Your task to perform on an android device: open a new tab in the chrome app Image 0: 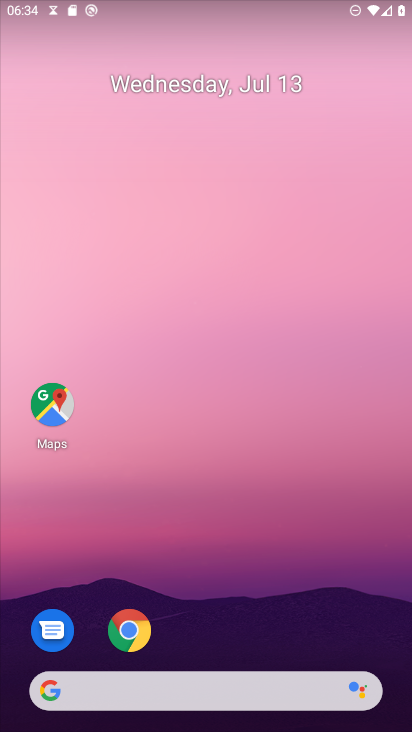
Step 0: drag from (302, 684) to (360, 0)
Your task to perform on an android device: open a new tab in the chrome app Image 1: 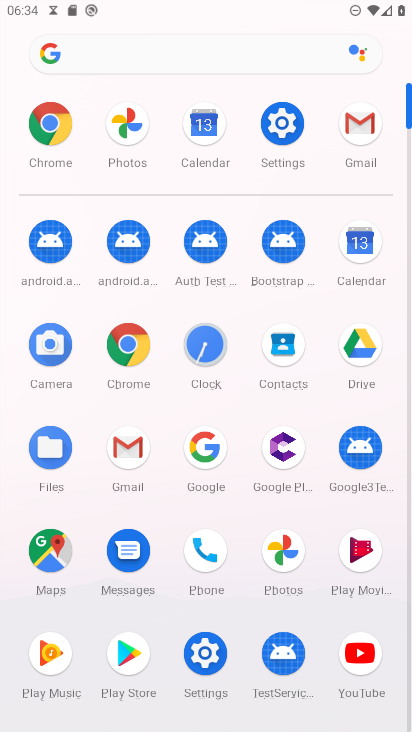
Step 1: click (134, 356)
Your task to perform on an android device: open a new tab in the chrome app Image 2: 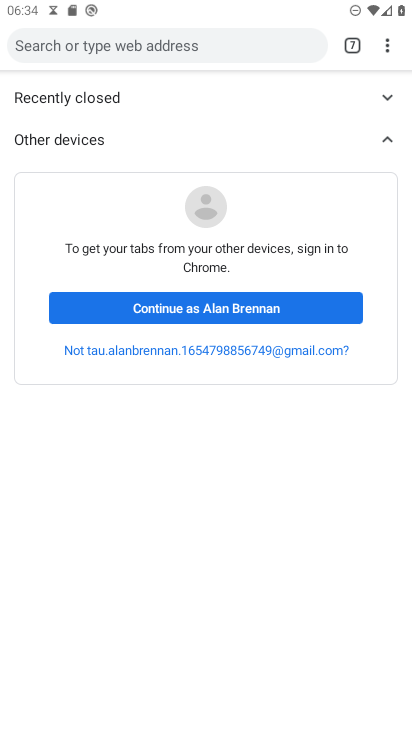
Step 2: task complete